Your task to perform on an android device: View the shopping cart on bestbuy. Add logitech g pro to the cart on bestbuy Image 0: 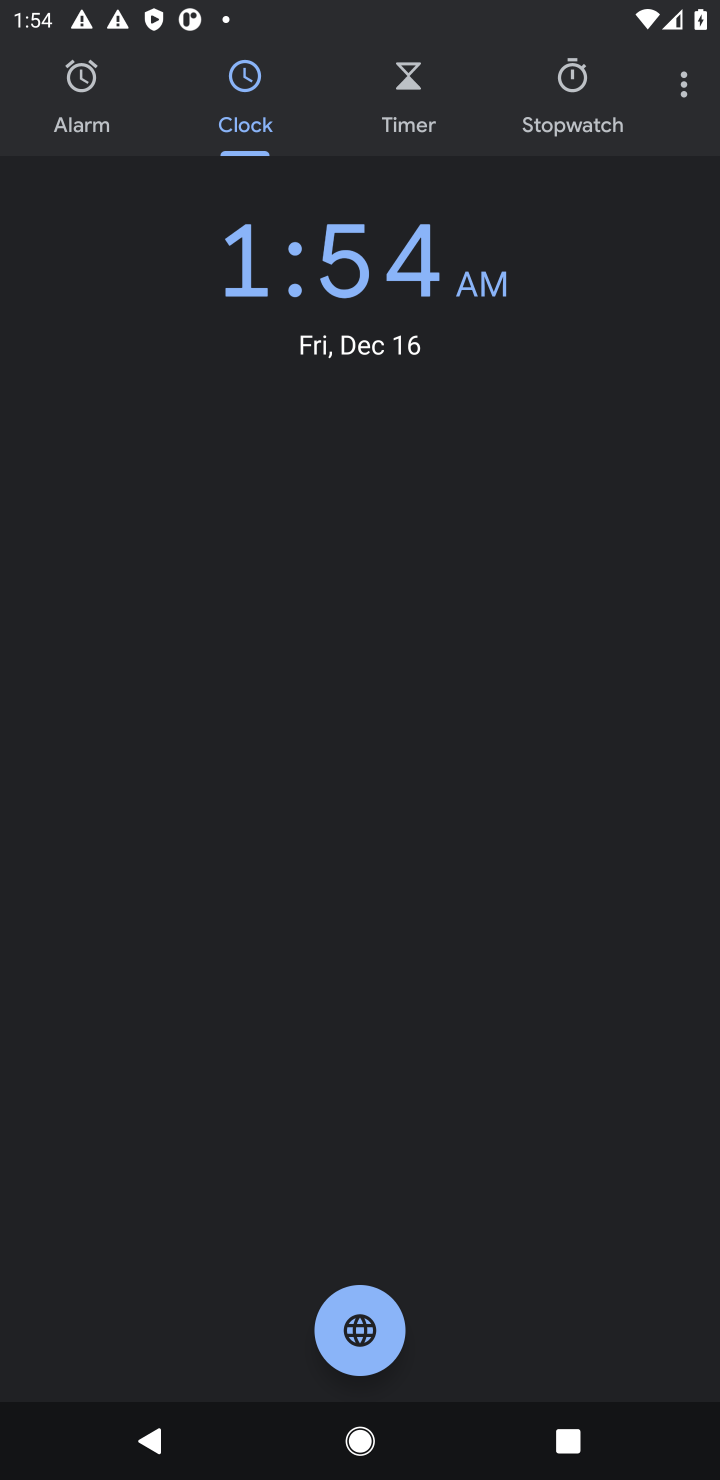
Step 0: press home button
Your task to perform on an android device: View the shopping cart on bestbuy. Add logitech g pro to the cart on bestbuy Image 1: 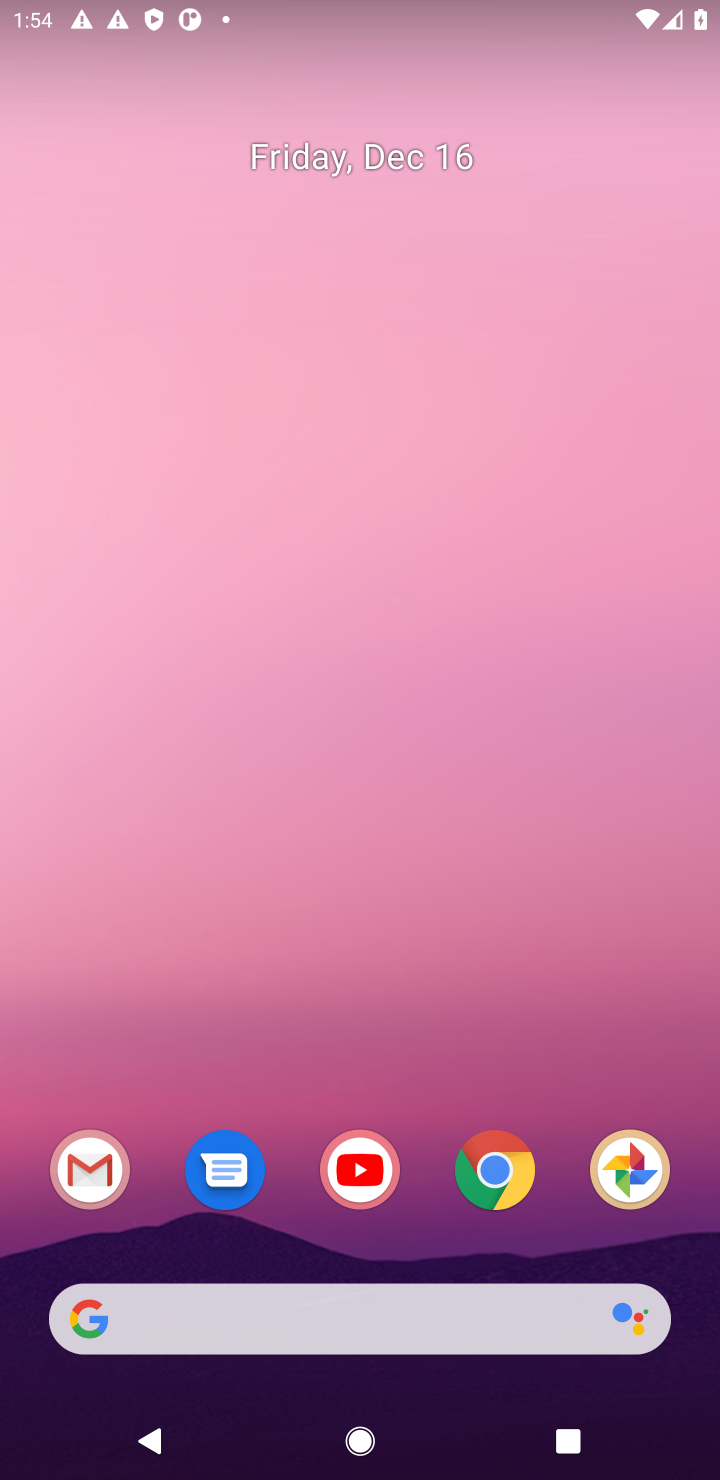
Step 1: click (502, 1174)
Your task to perform on an android device: View the shopping cart on bestbuy. Add logitech g pro to the cart on bestbuy Image 2: 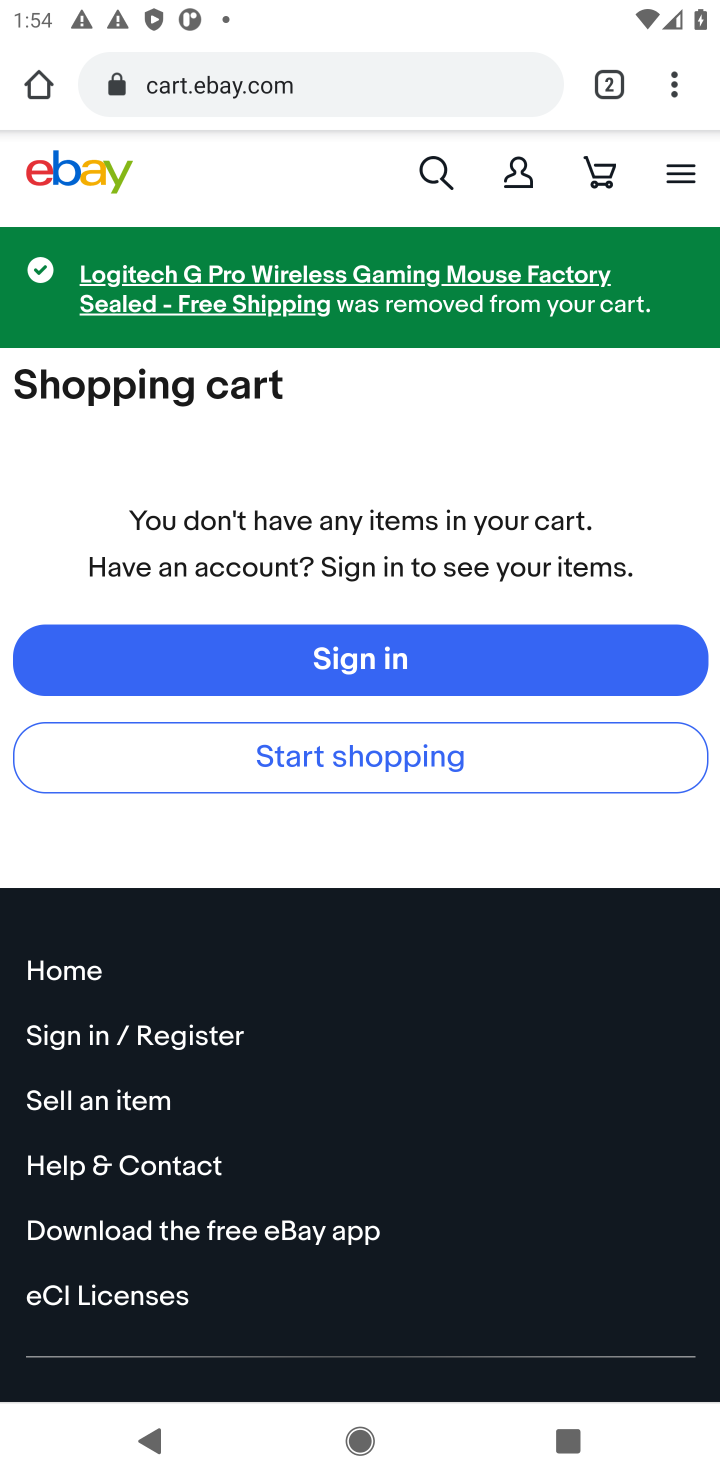
Step 2: click (226, 90)
Your task to perform on an android device: View the shopping cart on bestbuy. Add logitech g pro to the cart on bestbuy Image 3: 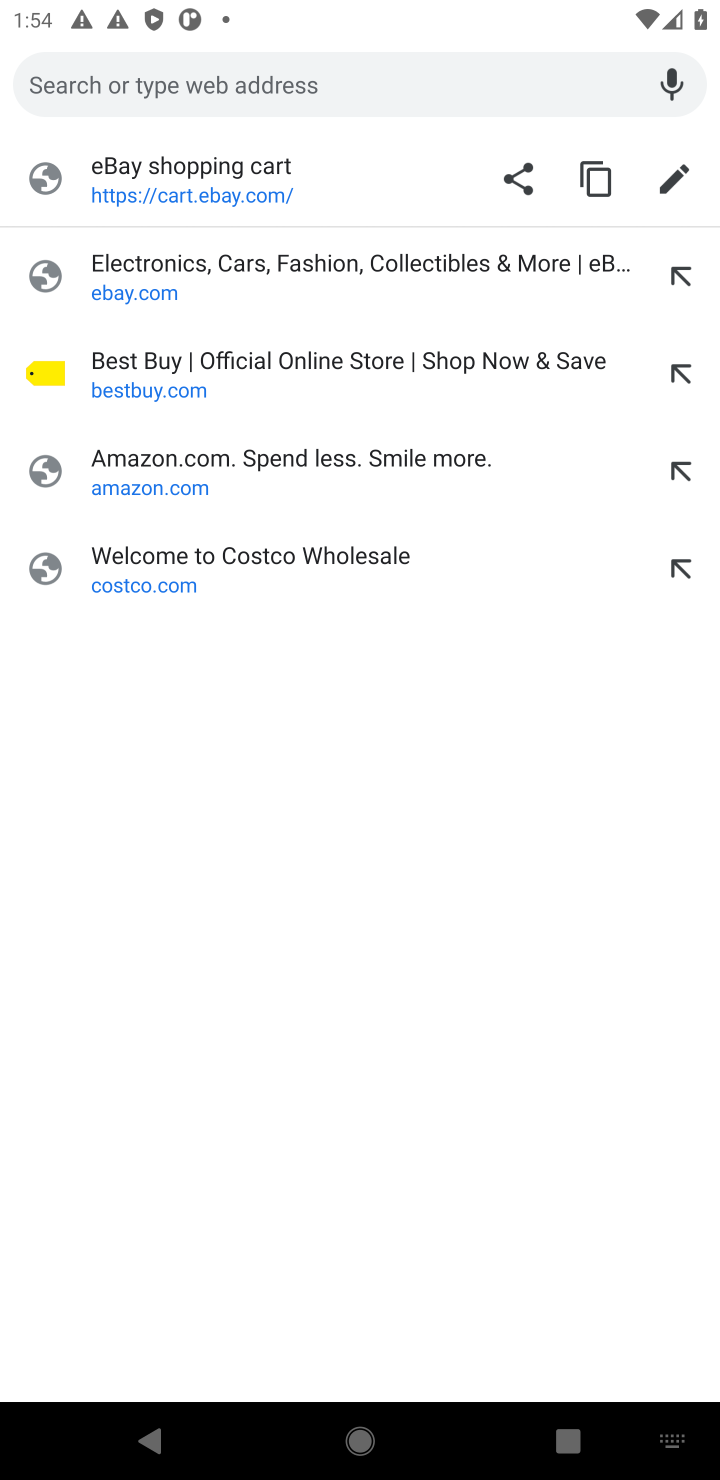
Step 3: click (133, 378)
Your task to perform on an android device: View the shopping cart on bestbuy. Add logitech g pro to the cart on bestbuy Image 4: 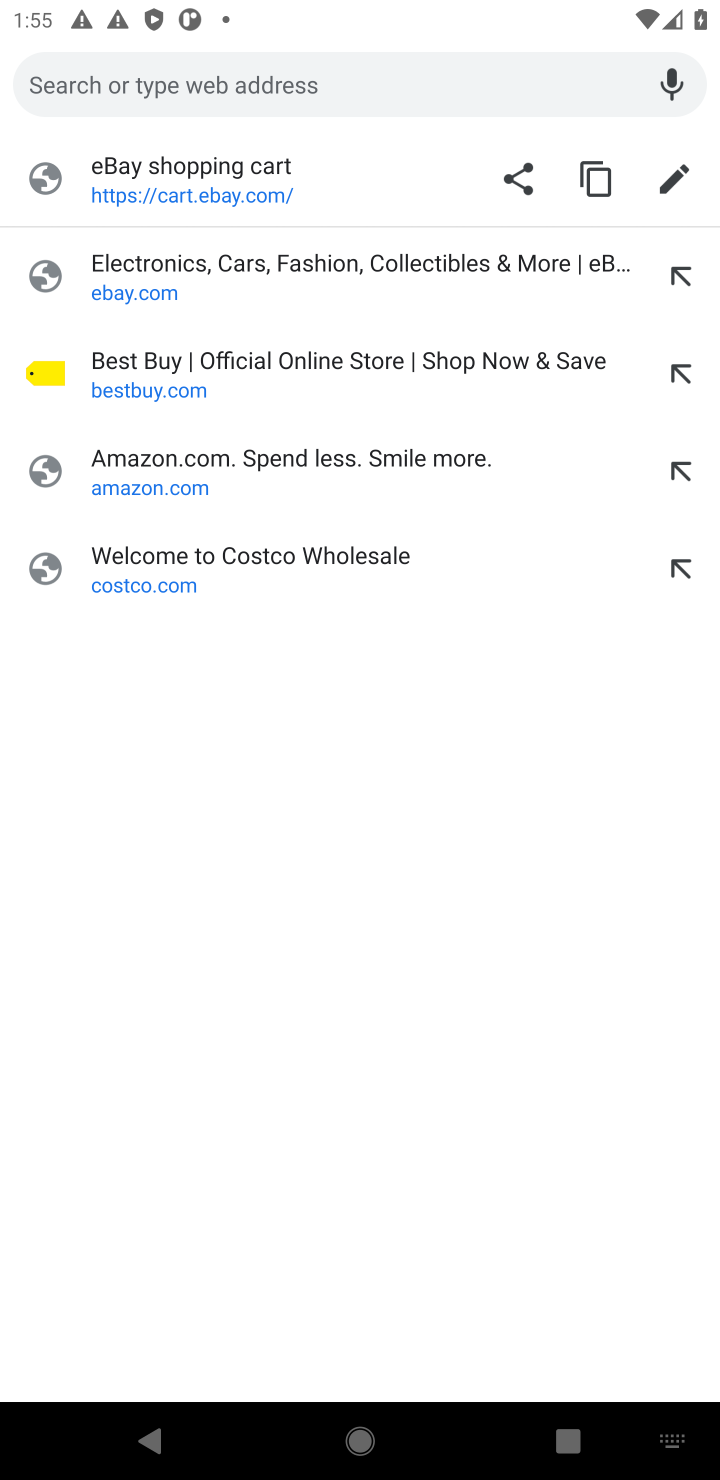
Step 4: click (158, 378)
Your task to perform on an android device: View the shopping cart on bestbuy. Add logitech g pro to the cart on bestbuy Image 5: 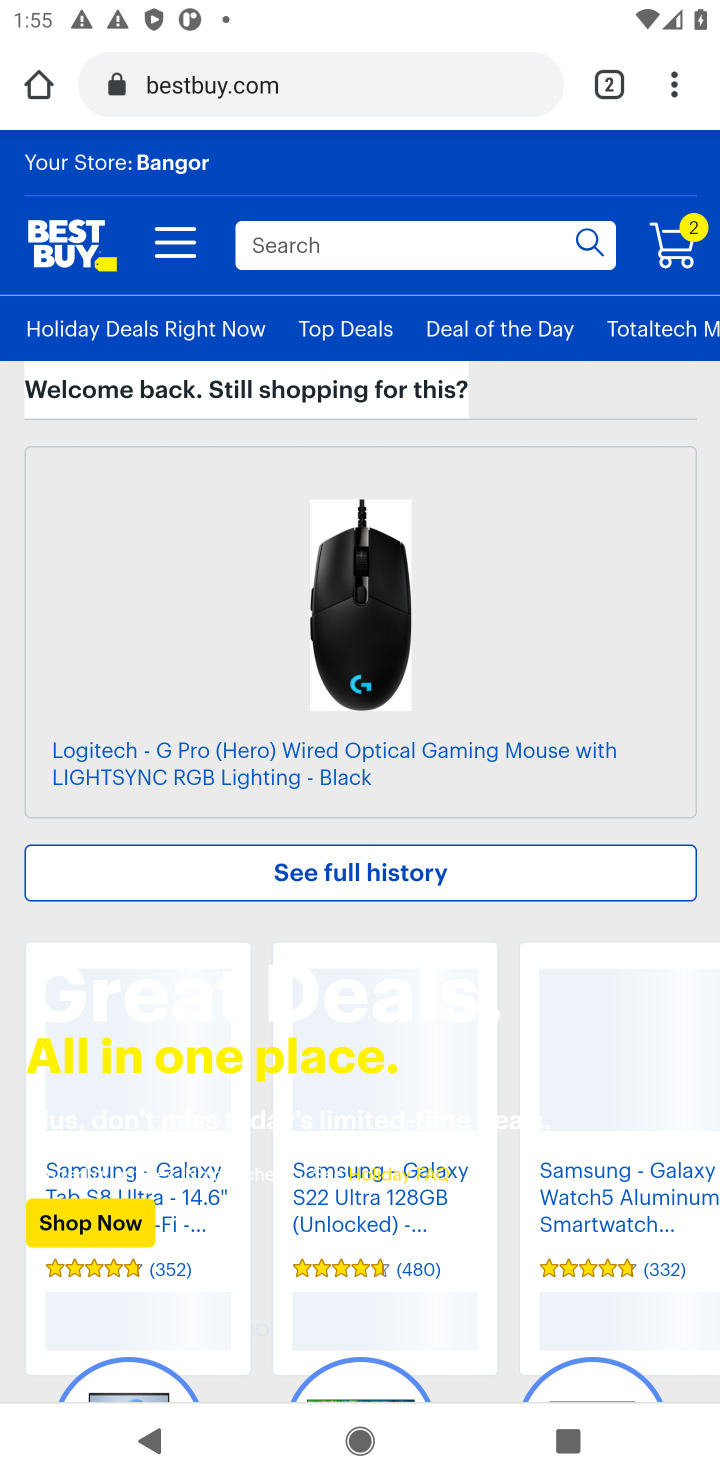
Step 5: click (680, 250)
Your task to perform on an android device: View the shopping cart on bestbuy. Add logitech g pro to the cart on bestbuy Image 6: 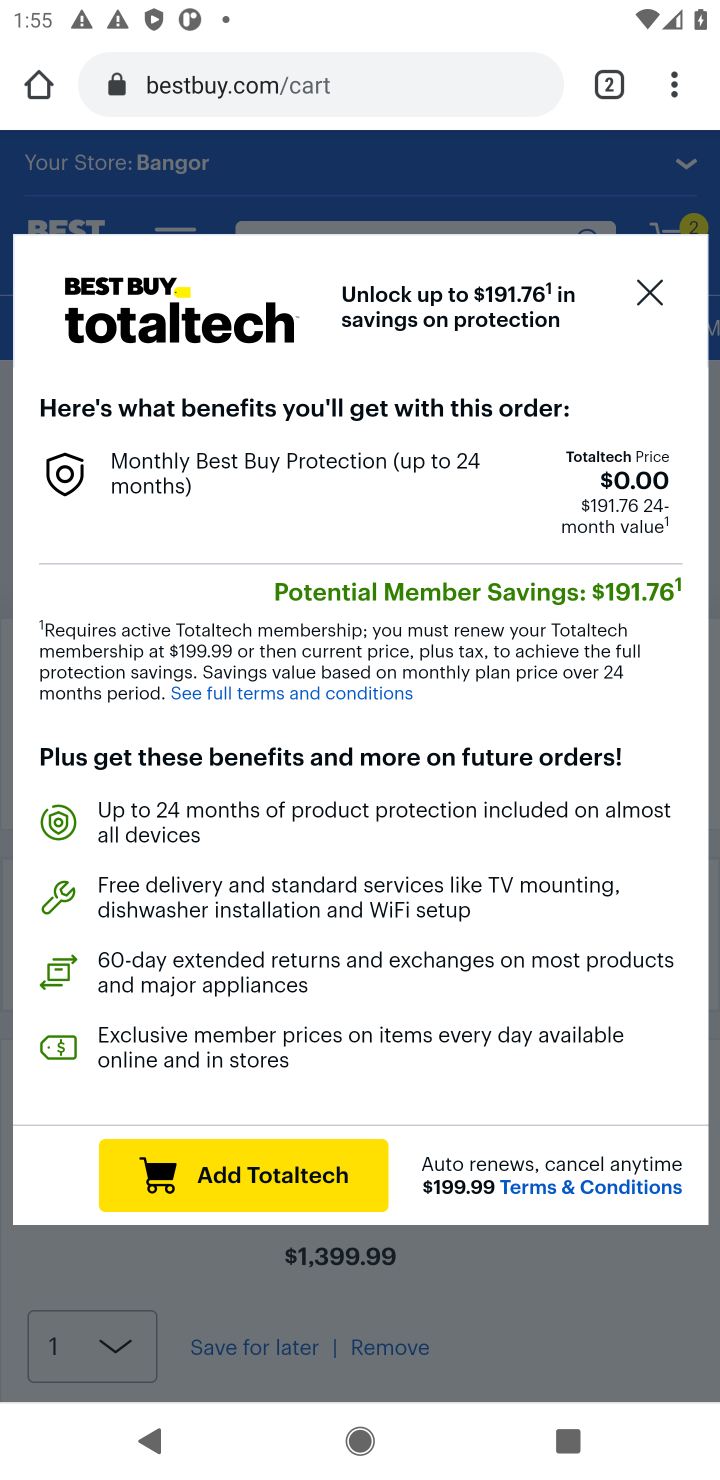
Step 6: click (646, 302)
Your task to perform on an android device: View the shopping cart on bestbuy. Add logitech g pro to the cart on bestbuy Image 7: 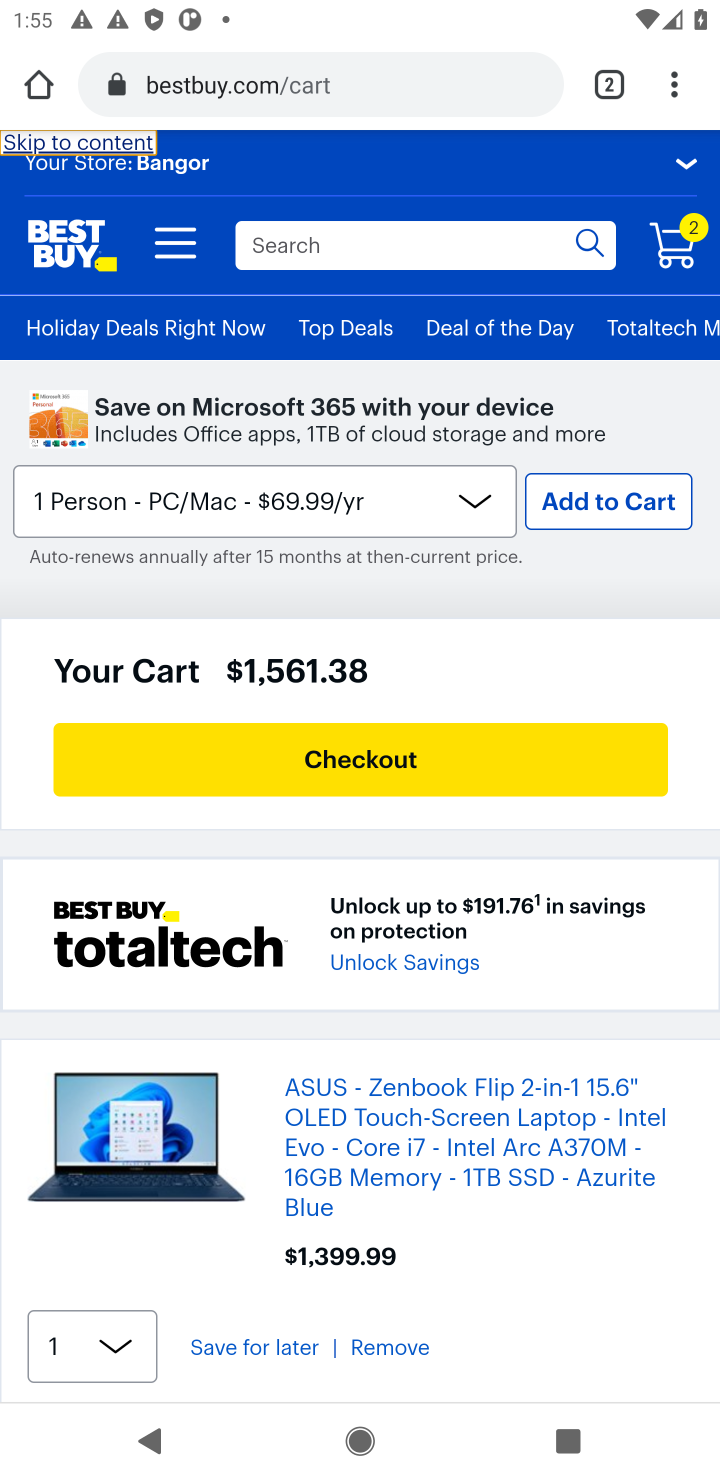
Step 7: drag from (354, 870) to (360, 533)
Your task to perform on an android device: View the shopping cart on bestbuy. Add logitech g pro to the cart on bestbuy Image 8: 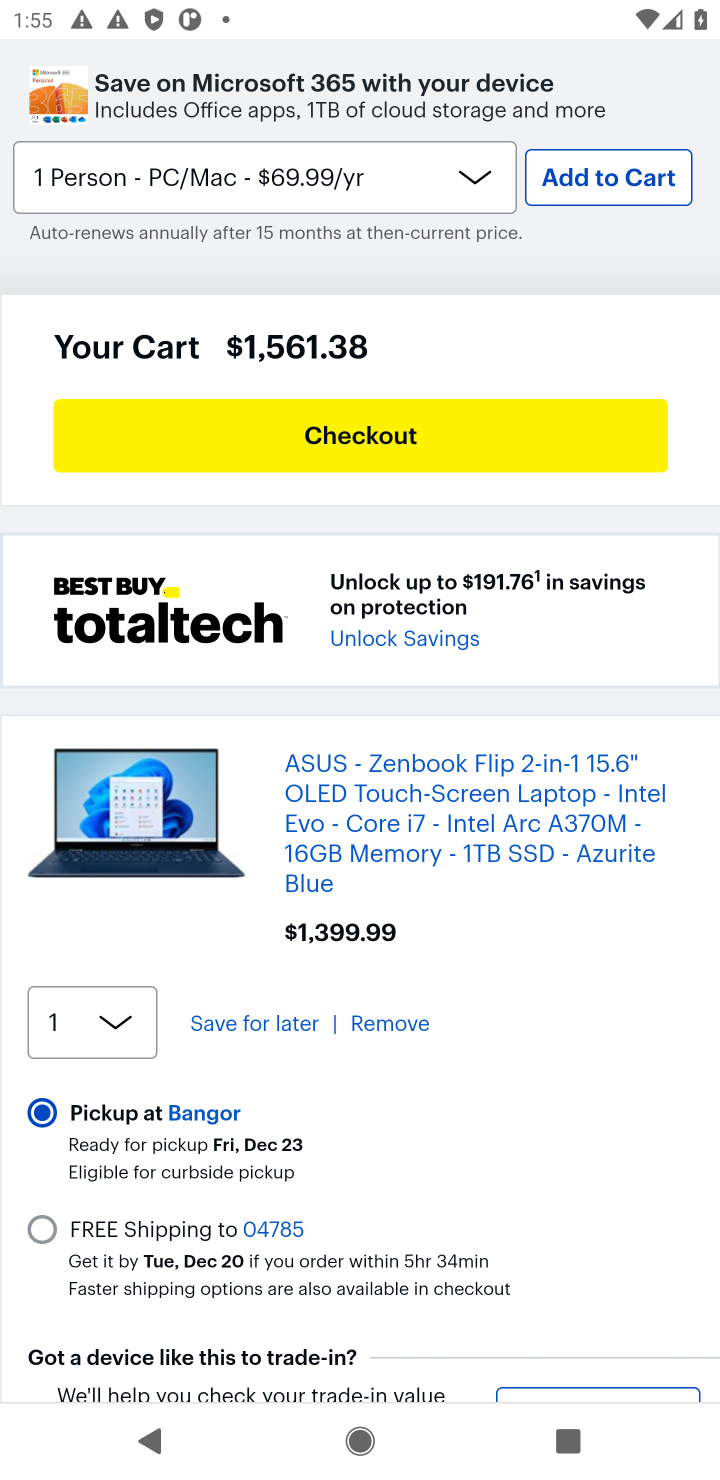
Step 8: drag from (450, 547) to (346, 1177)
Your task to perform on an android device: View the shopping cart on bestbuy. Add logitech g pro to the cart on bestbuy Image 9: 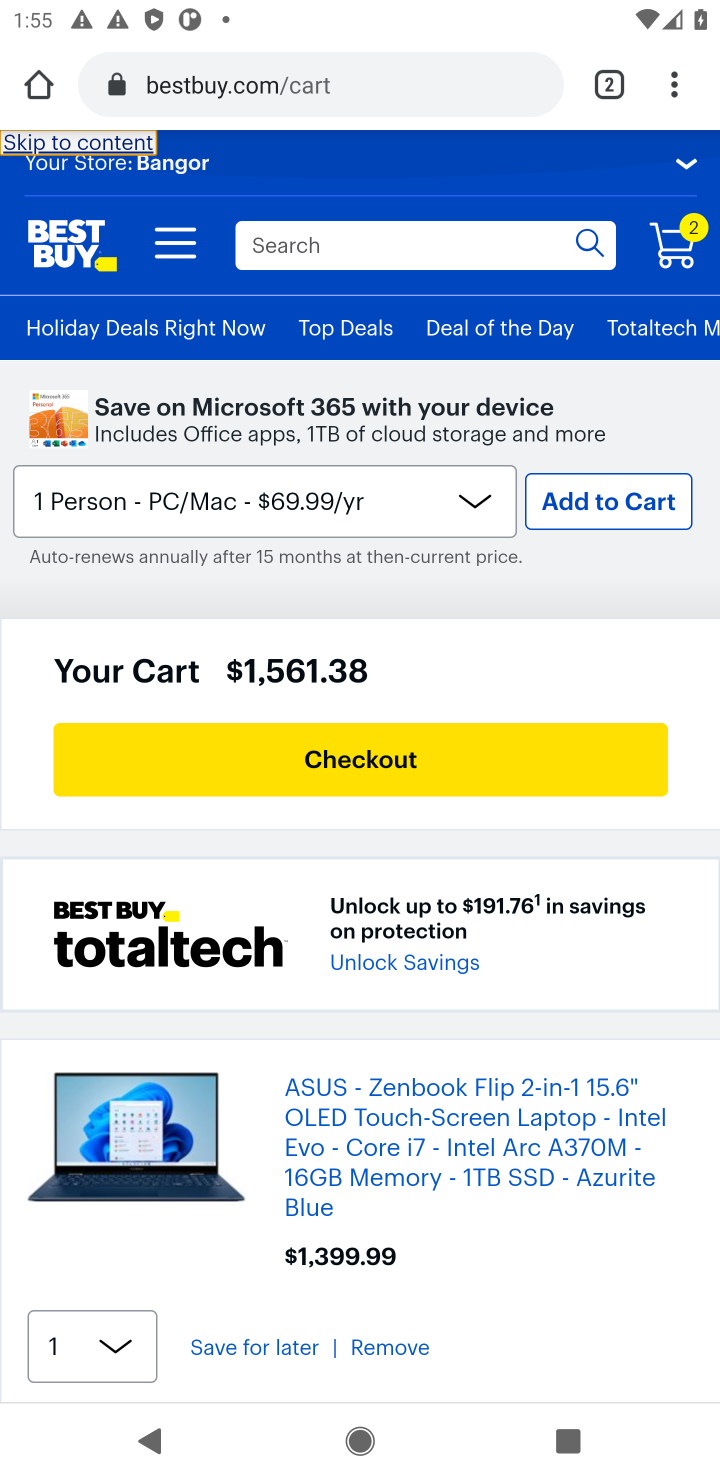
Step 9: click (309, 235)
Your task to perform on an android device: View the shopping cart on bestbuy. Add logitech g pro to the cart on bestbuy Image 10: 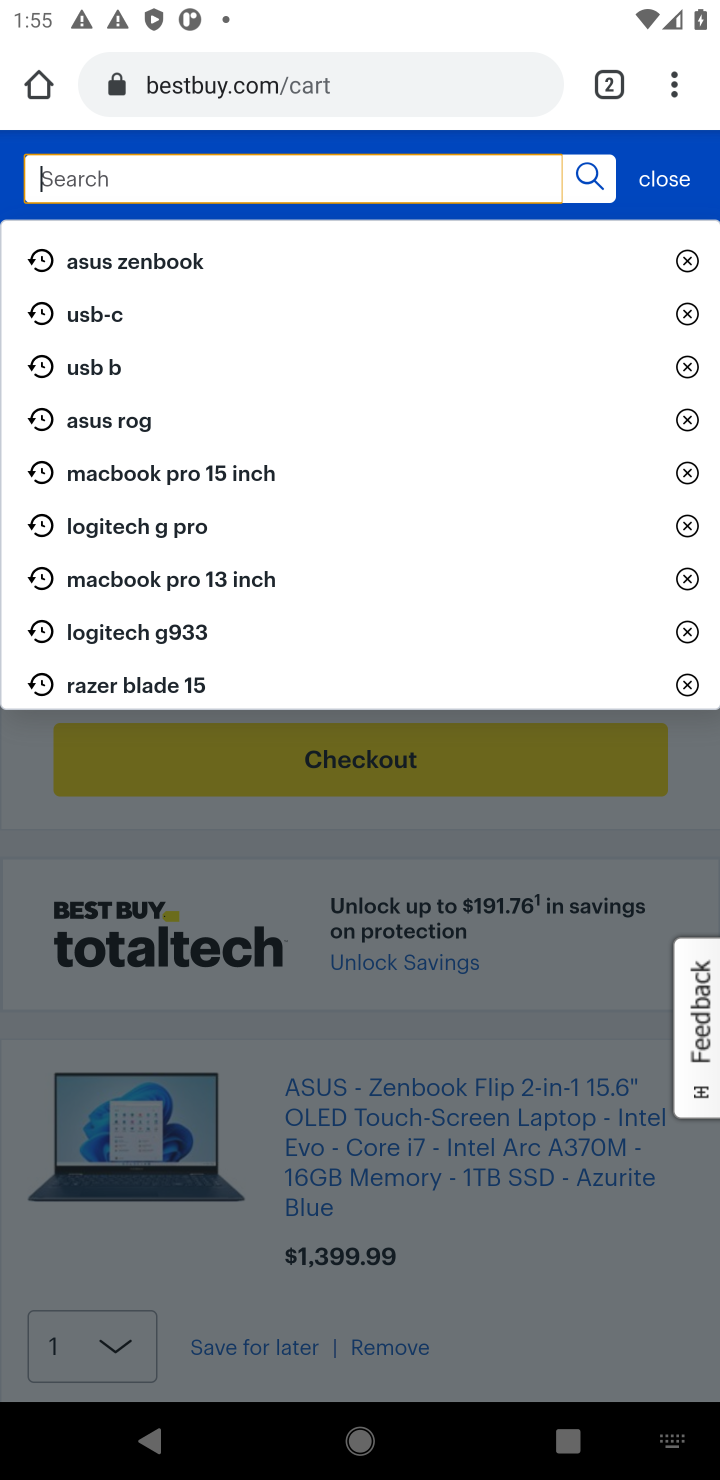
Step 10: type "logitech g pro"
Your task to perform on an android device: View the shopping cart on bestbuy. Add logitech g pro to the cart on bestbuy Image 11: 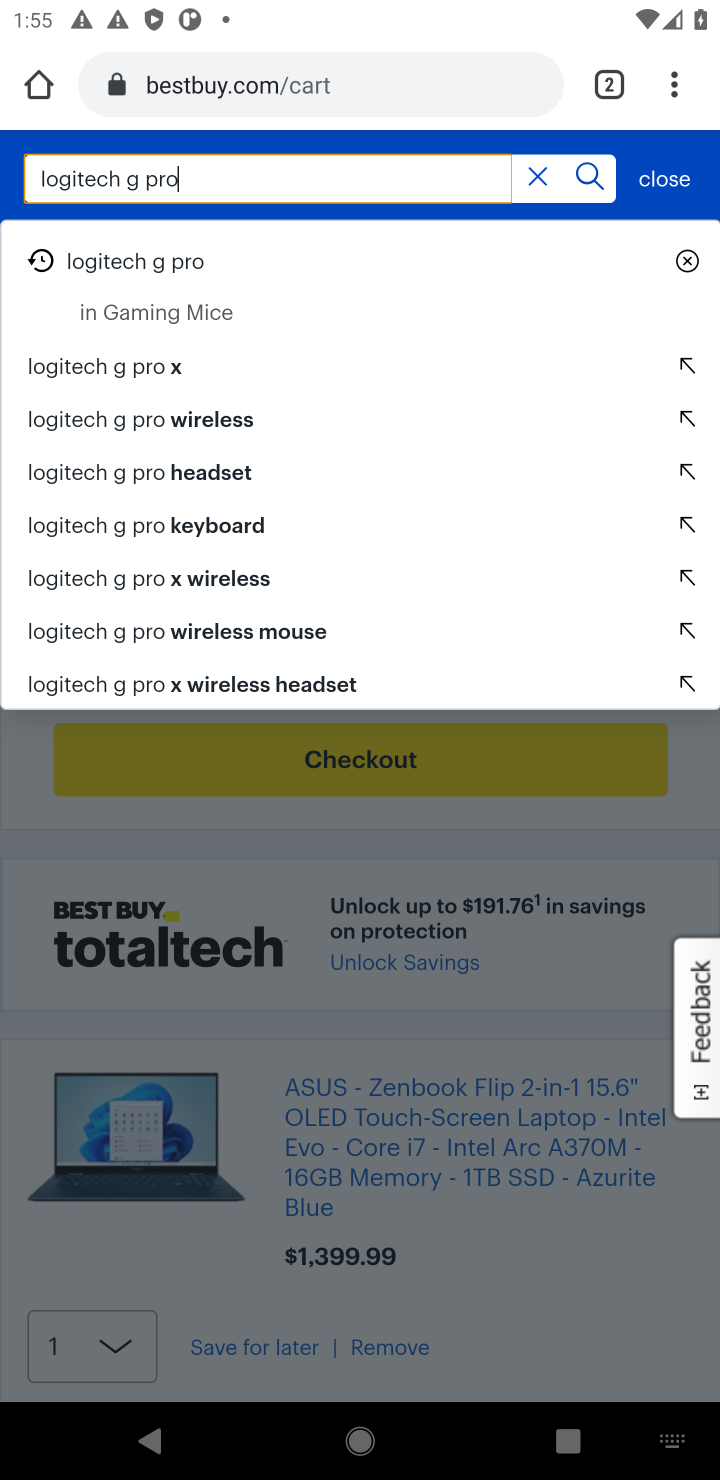
Step 11: click (149, 266)
Your task to perform on an android device: View the shopping cart on bestbuy. Add logitech g pro to the cart on bestbuy Image 12: 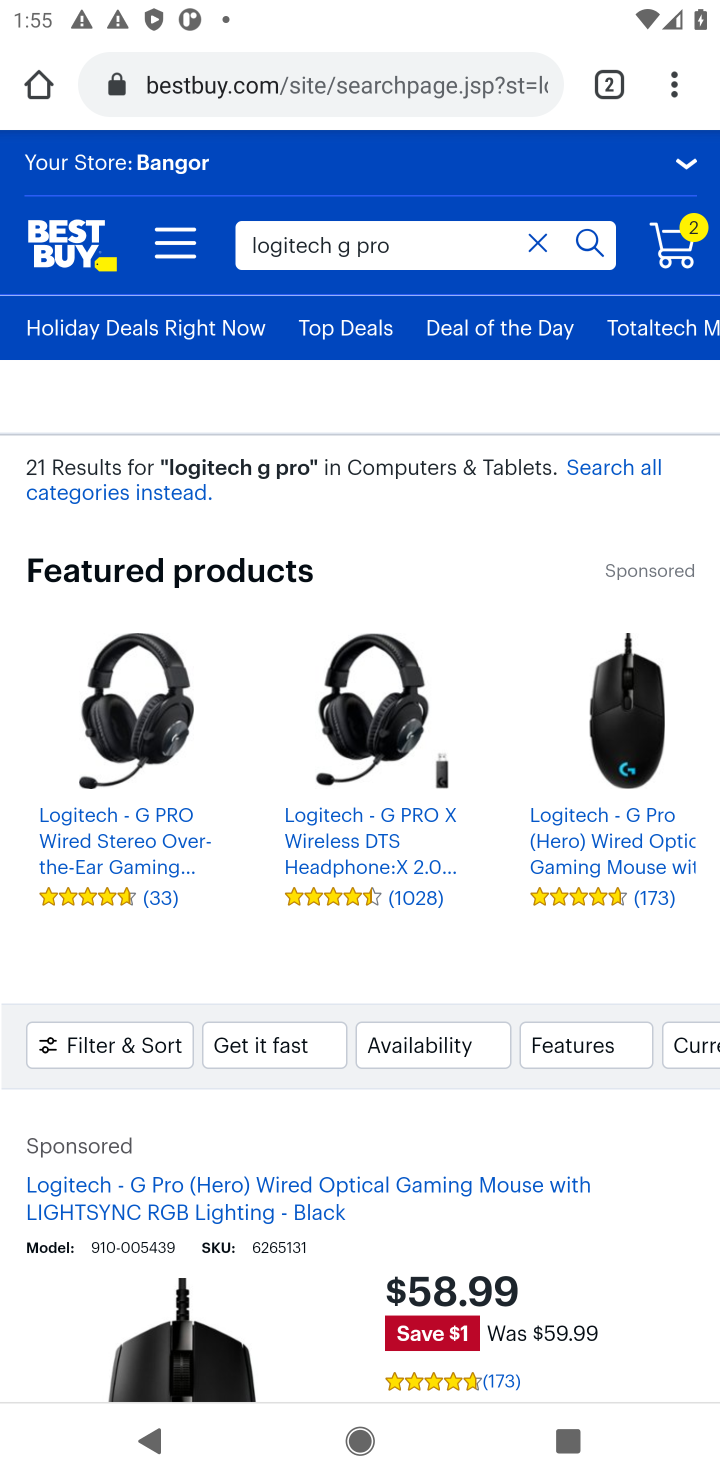
Step 12: drag from (393, 1177) to (382, 669)
Your task to perform on an android device: View the shopping cart on bestbuy. Add logitech g pro to the cart on bestbuy Image 13: 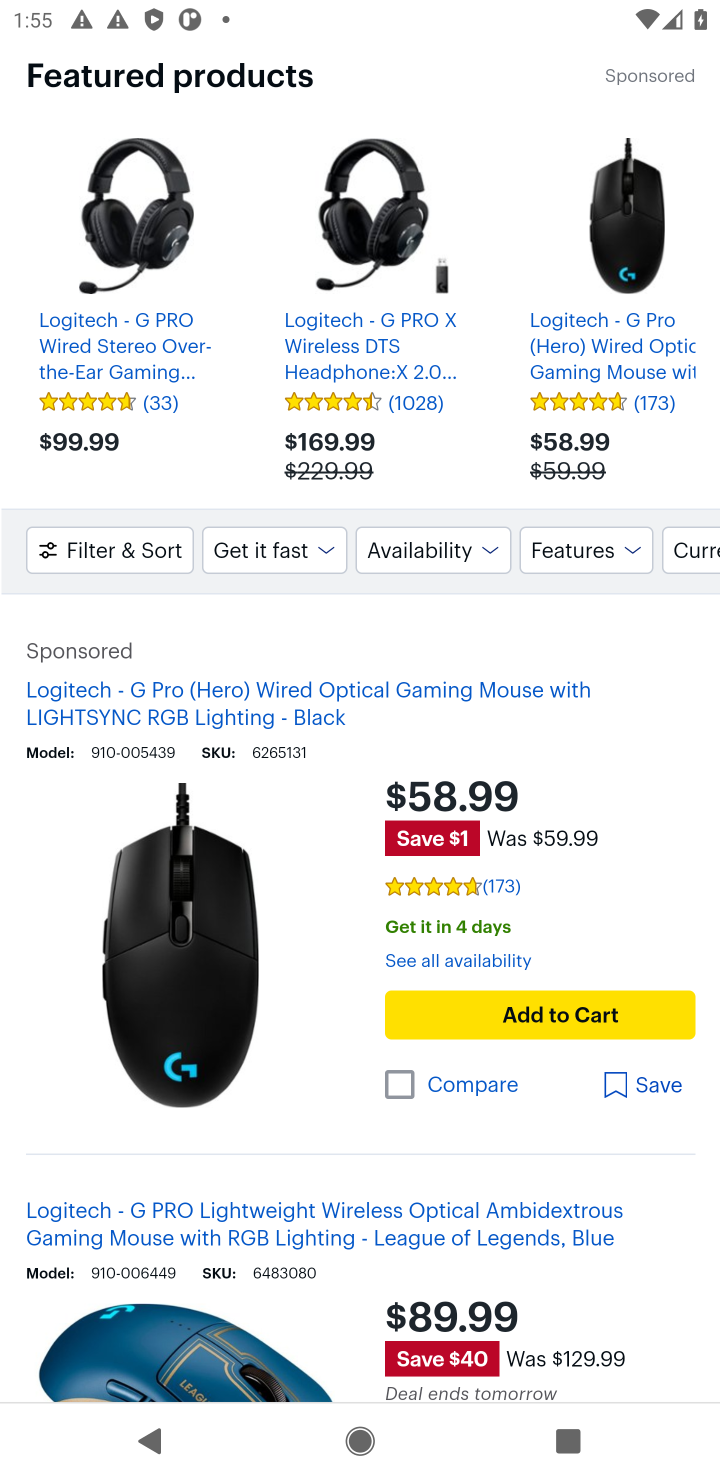
Step 13: click (521, 1012)
Your task to perform on an android device: View the shopping cart on bestbuy. Add logitech g pro to the cart on bestbuy Image 14: 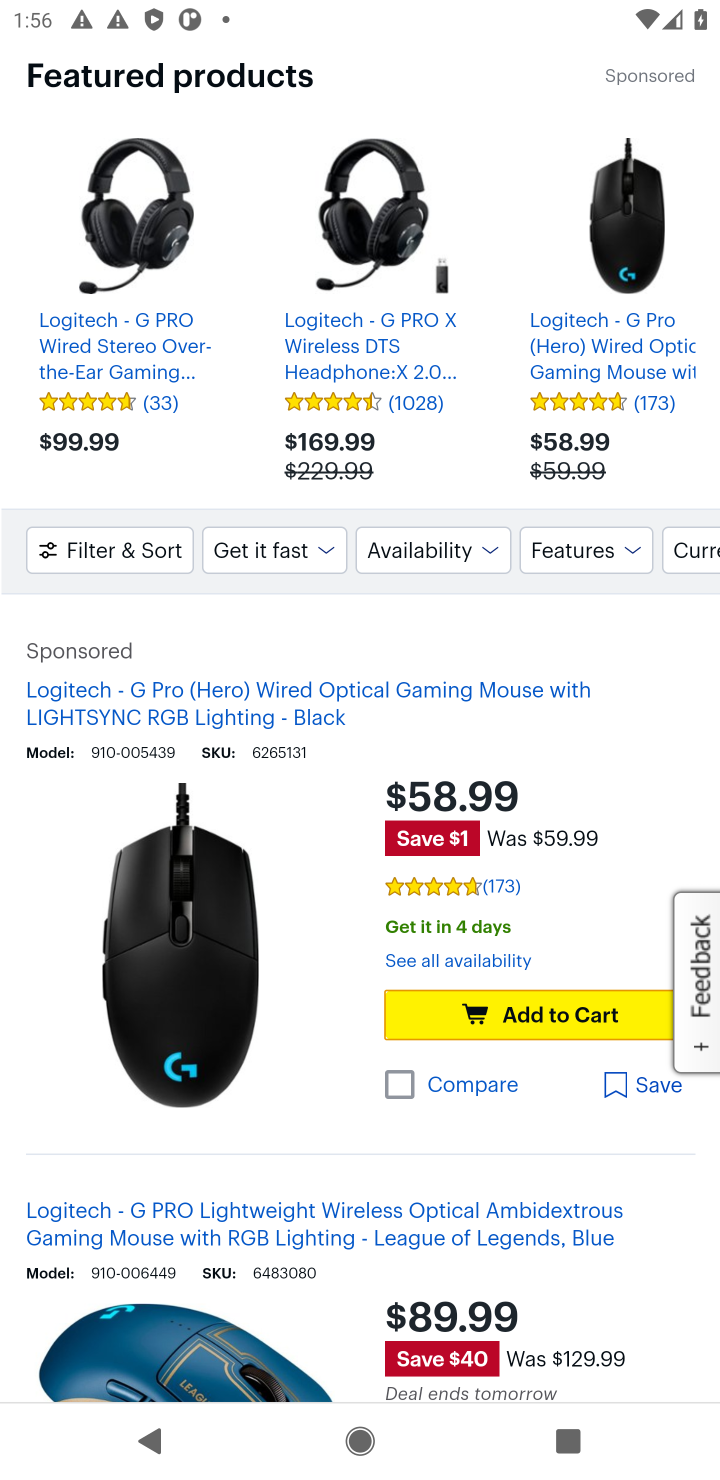
Step 14: click (521, 1014)
Your task to perform on an android device: View the shopping cart on bestbuy. Add logitech g pro to the cart on bestbuy Image 15: 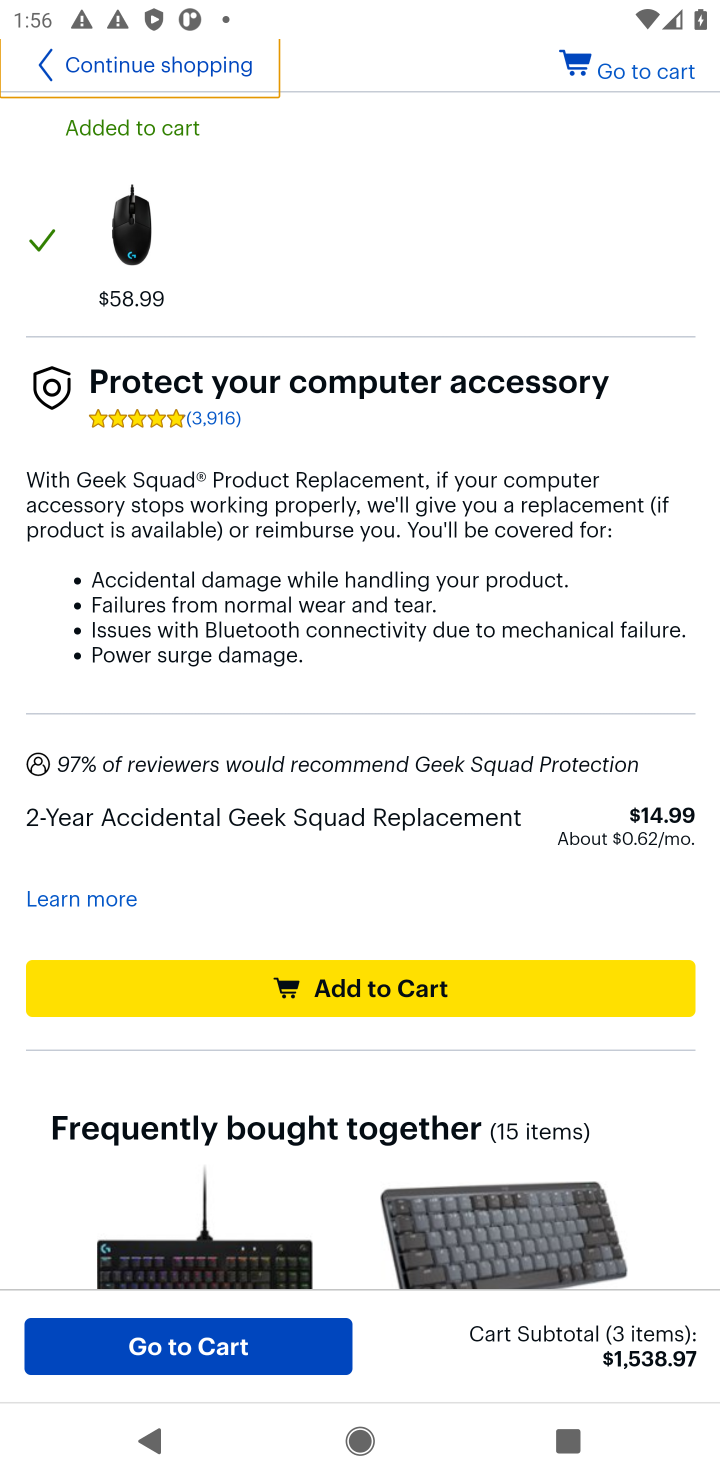
Step 15: task complete